Your task to perform on an android device: check android version Image 0: 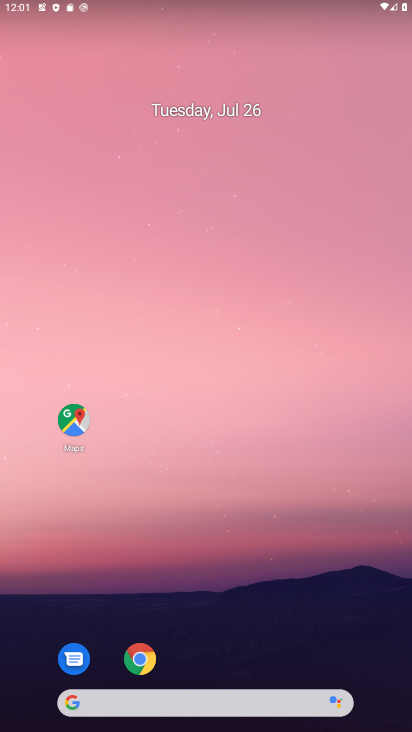
Step 0: drag from (242, 298) to (250, 229)
Your task to perform on an android device: check android version Image 1: 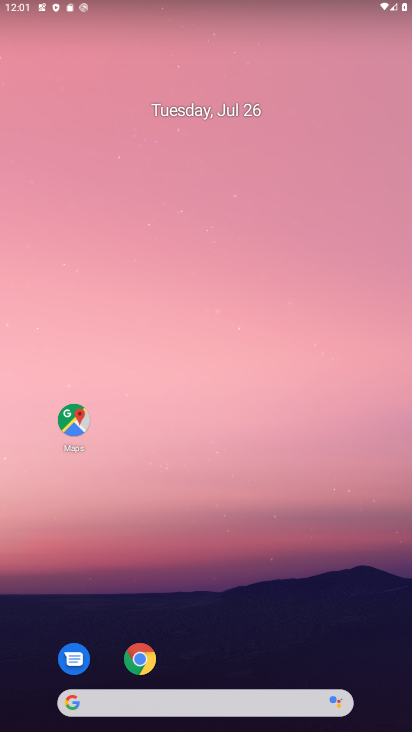
Step 1: drag from (183, 656) to (219, 325)
Your task to perform on an android device: check android version Image 2: 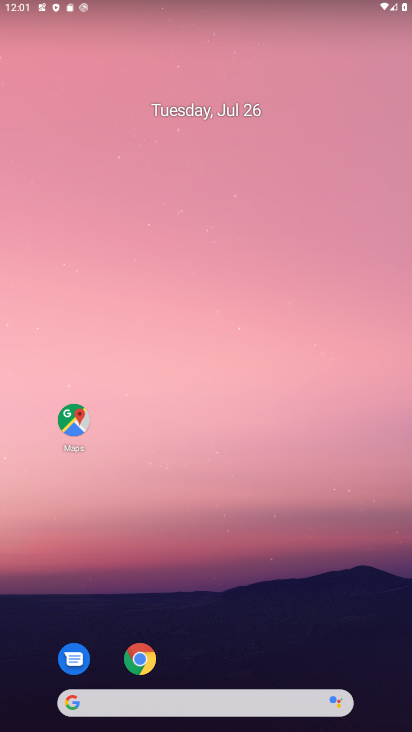
Step 2: drag from (218, 662) to (282, 247)
Your task to perform on an android device: check android version Image 3: 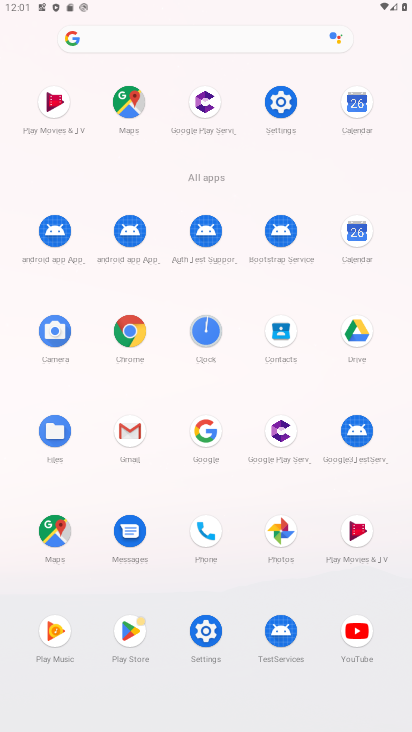
Step 3: click (204, 621)
Your task to perform on an android device: check android version Image 4: 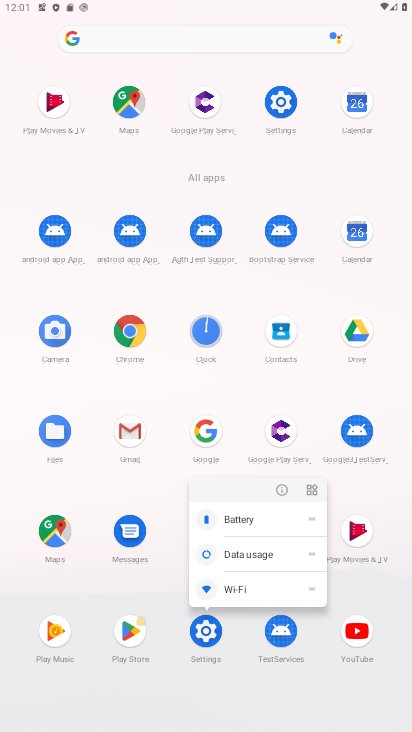
Step 4: click (280, 481)
Your task to perform on an android device: check android version Image 5: 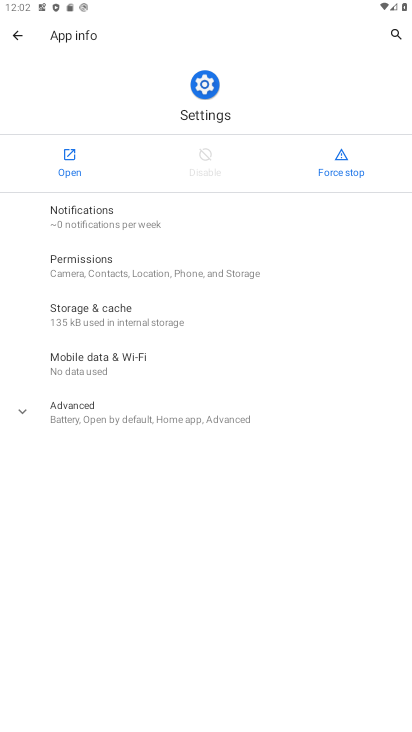
Step 5: click (77, 170)
Your task to perform on an android device: check android version Image 6: 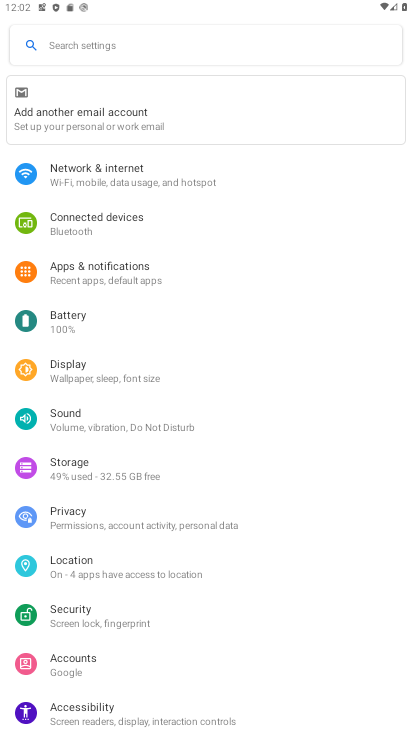
Step 6: drag from (173, 638) to (232, 208)
Your task to perform on an android device: check android version Image 7: 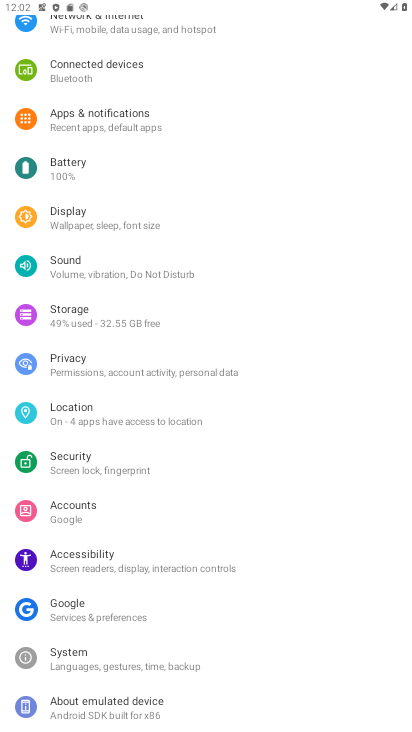
Step 7: click (132, 706)
Your task to perform on an android device: check android version Image 8: 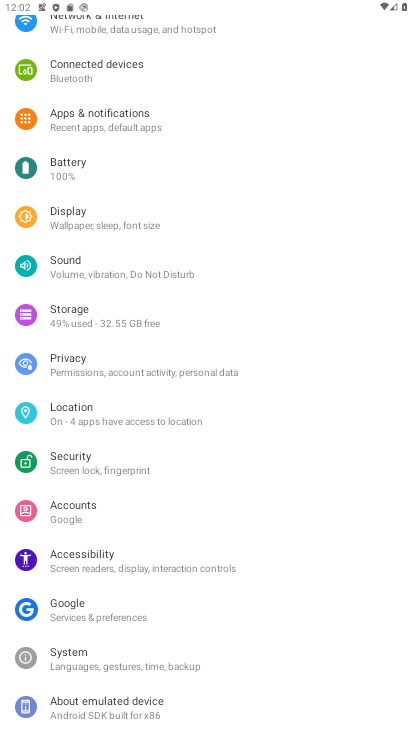
Step 8: click (132, 705)
Your task to perform on an android device: check android version Image 9: 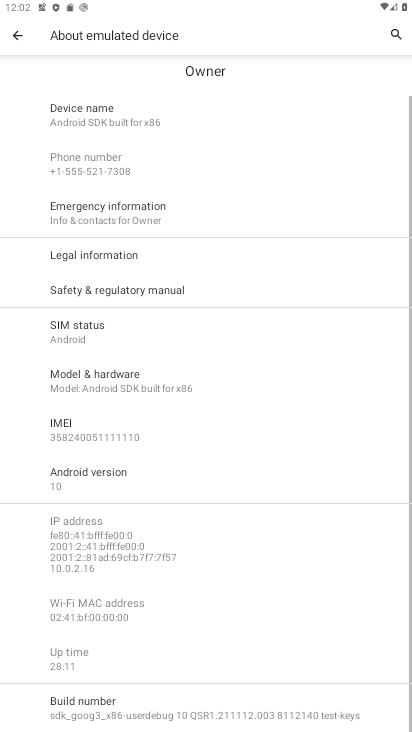
Step 9: click (150, 477)
Your task to perform on an android device: check android version Image 10: 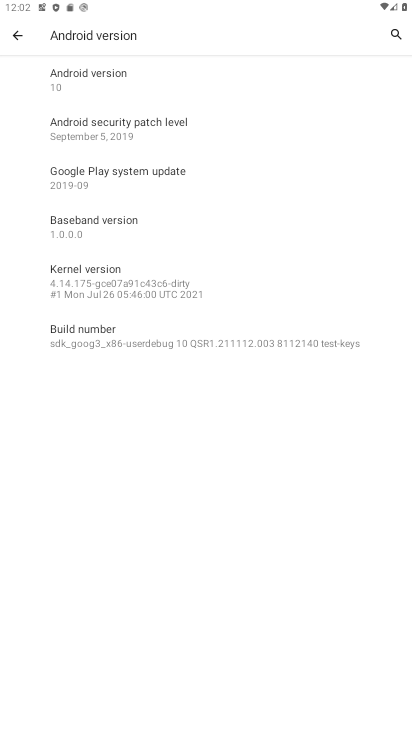
Step 10: click (124, 82)
Your task to perform on an android device: check android version Image 11: 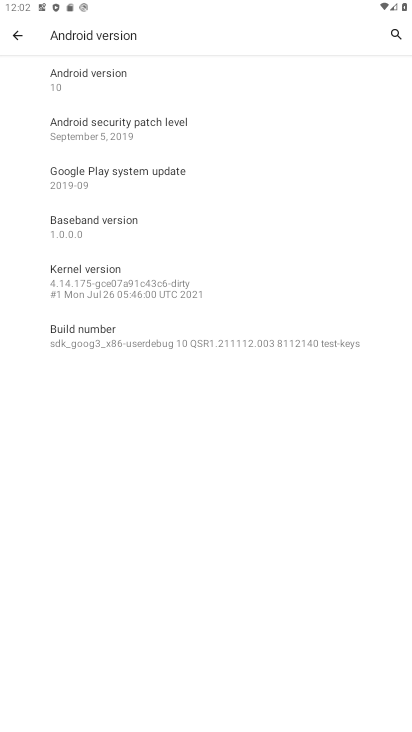
Step 11: task complete